Your task to perform on an android device: Open Youtube and go to "Your channel" Image 0: 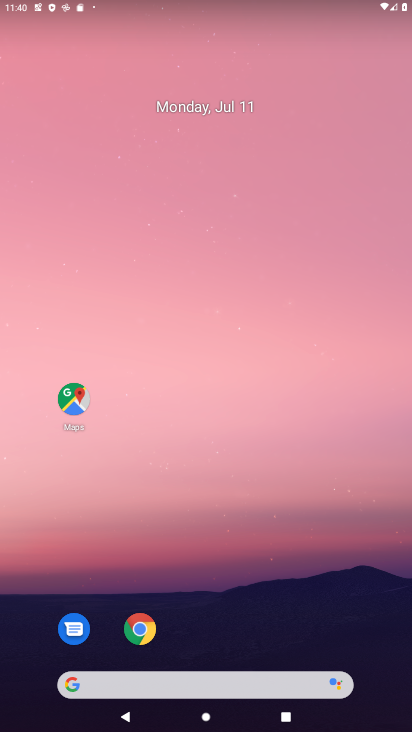
Step 0: drag from (290, 632) to (210, 67)
Your task to perform on an android device: Open Youtube and go to "Your channel" Image 1: 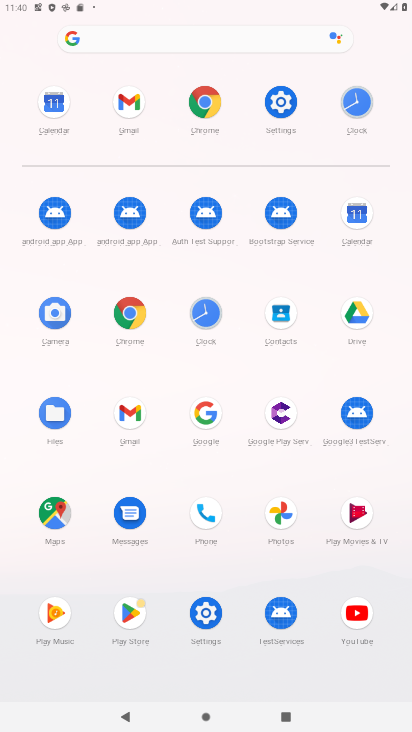
Step 1: click (357, 610)
Your task to perform on an android device: Open Youtube and go to "Your channel" Image 2: 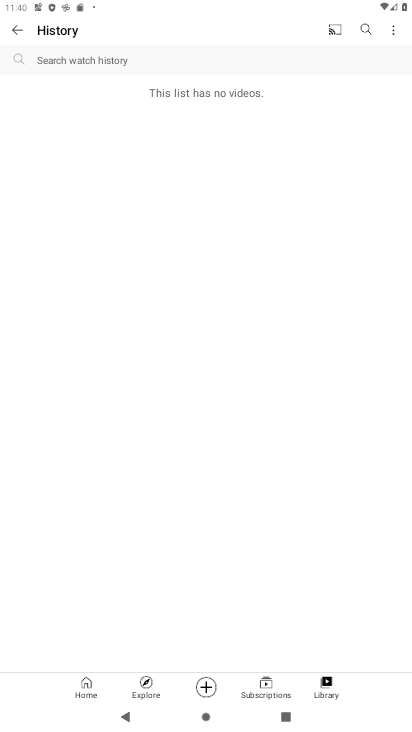
Step 2: click (16, 38)
Your task to perform on an android device: Open Youtube and go to "Your channel" Image 3: 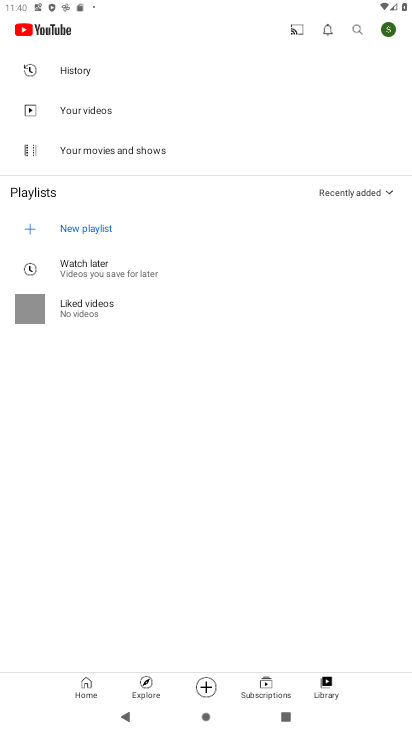
Step 3: click (98, 682)
Your task to perform on an android device: Open Youtube and go to "Your channel" Image 4: 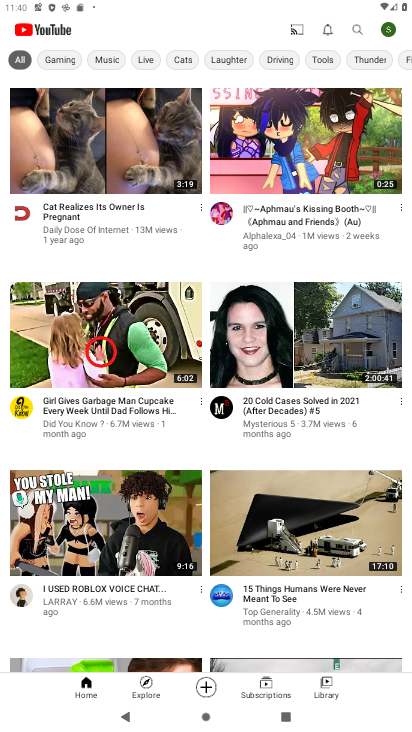
Step 4: click (387, 35)
Your task to perform on an android device: Open Youtube and go to "Your channel" Image 5: 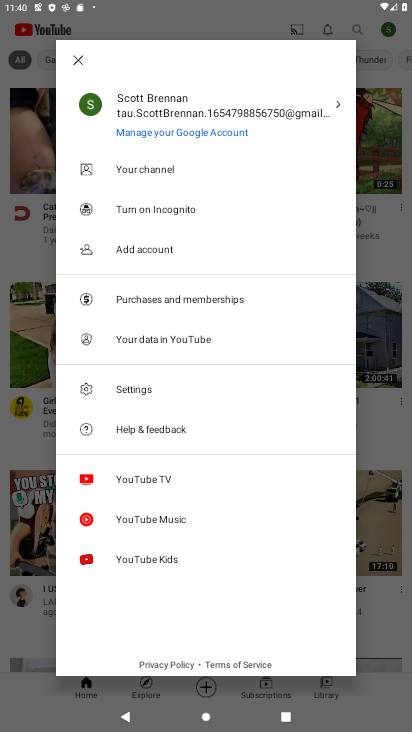
Step 5: click (210, 177)
Your task to perform on an android device: Open Youtube and go to "Your channel" Image 6: 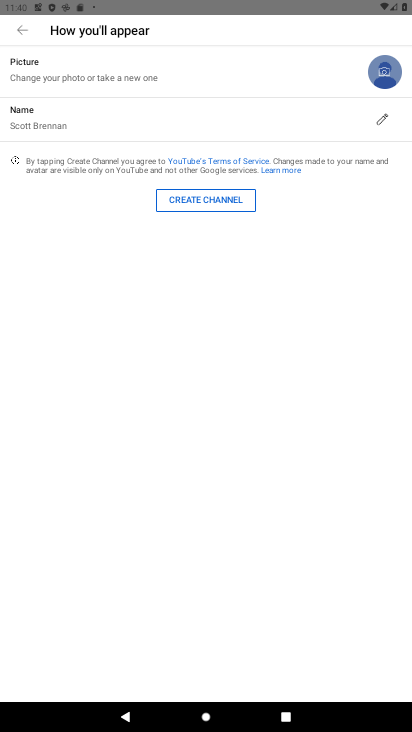
Step 6: task complete